Your task to perform on an android device: Open CNN.com Image 0: 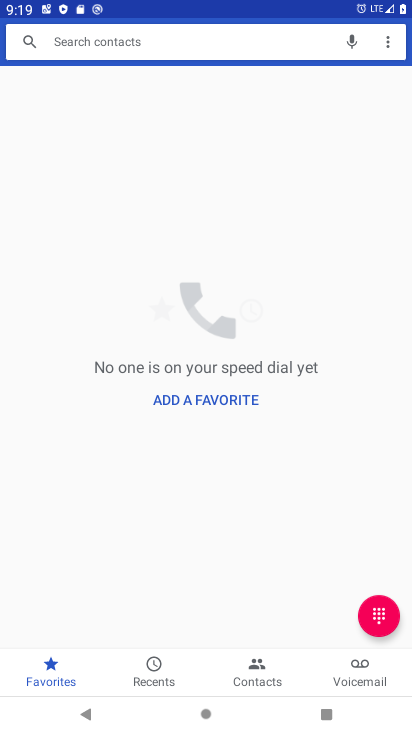
Step 0: press home button
Your task to perform on an android device: Open CNN.com Image 1: 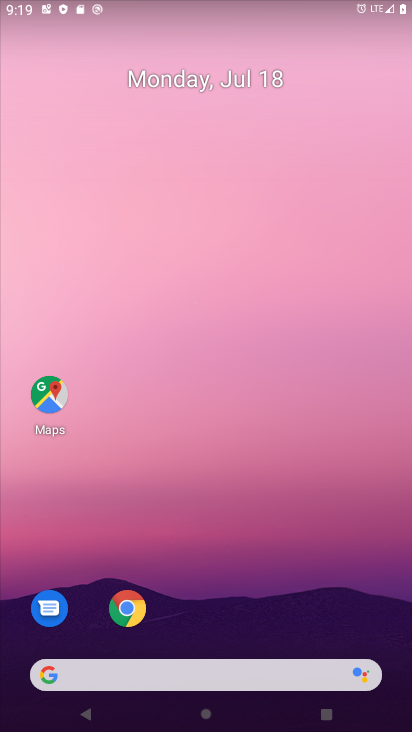
Step 1: drag from (236, 725) to (204, 223)
Your task to perform on an android device: Open CNN.com Image 2: 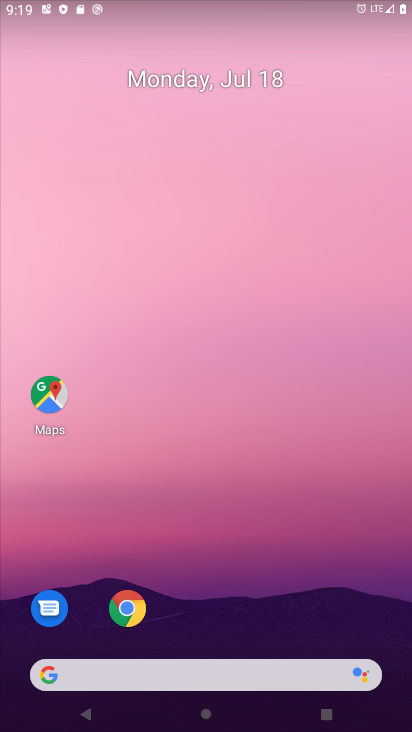
Step 2: drag from (231, 728) to (199, 80)
Your task to perform on an android device: Open CNN.com Image 3: 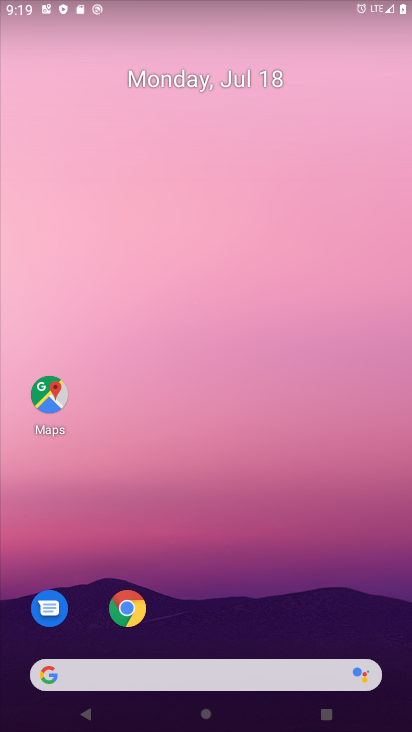
Step 3: click (125, 606)
Your task to perform on an android device: Open CNN.com Image 4: 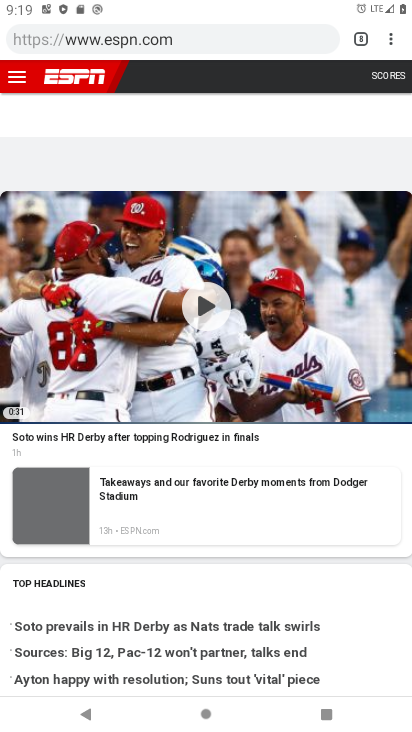
Step 4: click (391, 42)
Your task to perform on an android device: Open CNN.com Image 5: 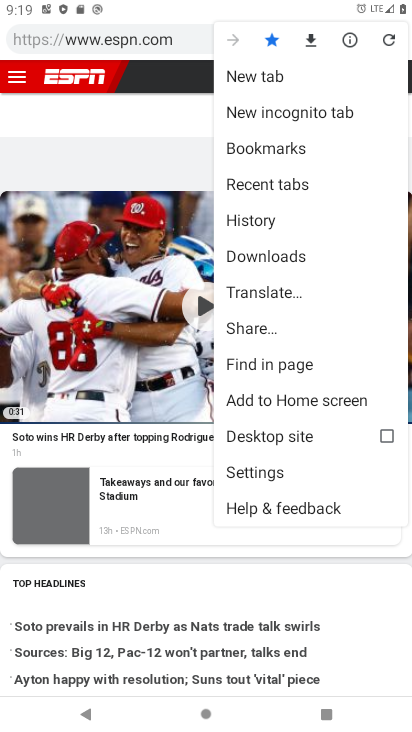
Step 5: click (247, 74)
Your task to perform on an android device: Open CNN.com Image 6: 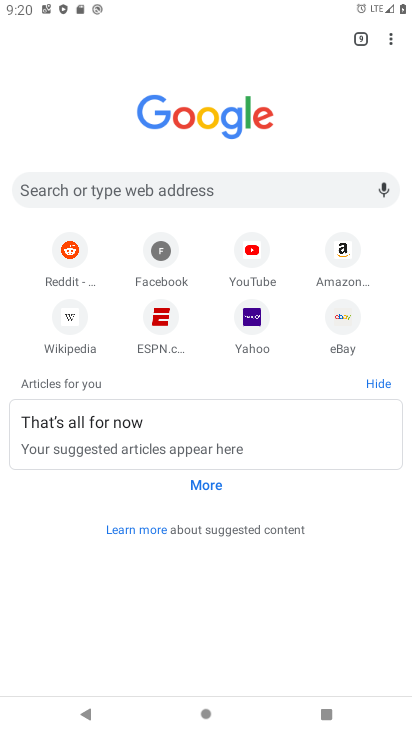
Step 6: click (194, 180)
Your task to perform on an android device: Open CNN.com Image 7: 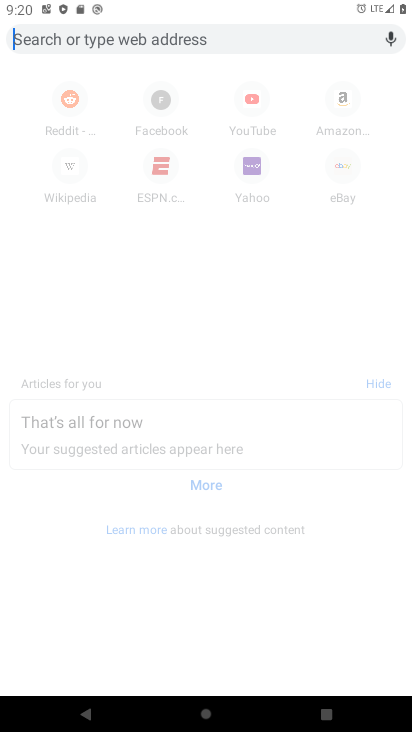
Step 7: type "CNN.com"
Your task to perform on an android device: Open CNN.com Image 8: 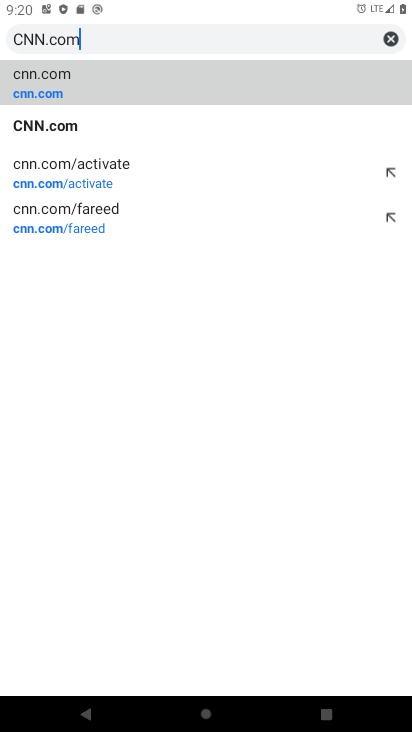
Step 8: type ""
Your task to perform on an android device: Open CNN.com Image 9: 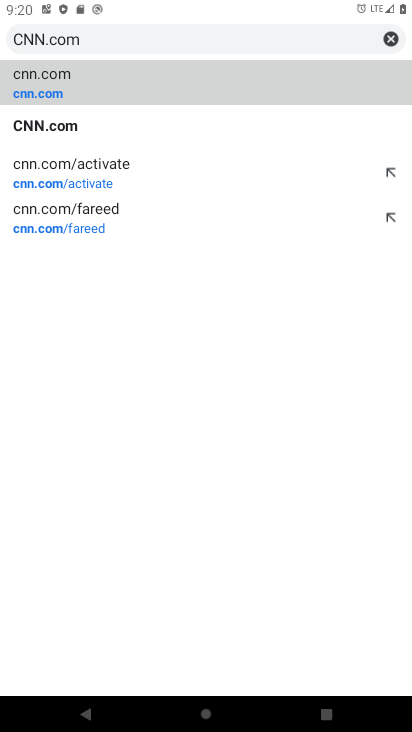
Step 9: click (54, 91)
Your task to perform on an android device: Open CNN.com Image 10: 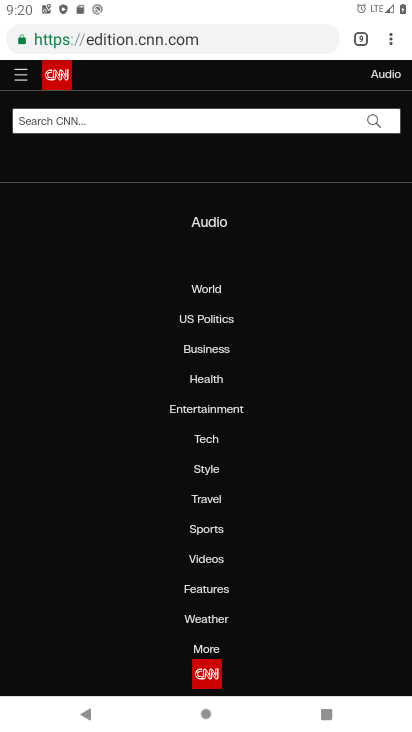
Step 10: task complete